Your task to perform on an android device: Open Google Chrome and click the shortcut for Amazon.com Image 0: 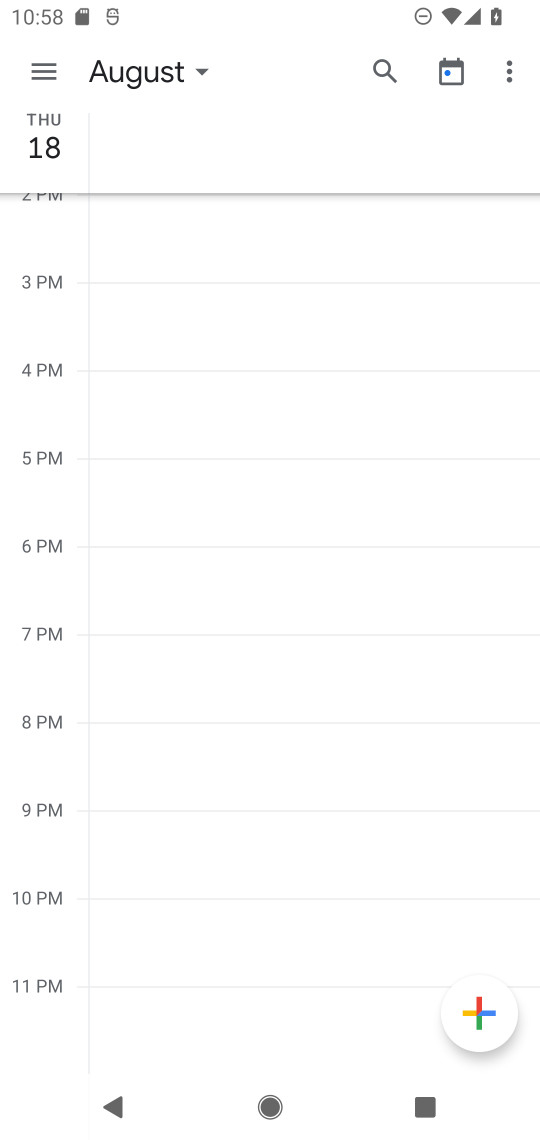
Step 0: press home button
Your task to perform on an android device: Open Google Chrome and click the shortcut for Amazon.com Image 1: 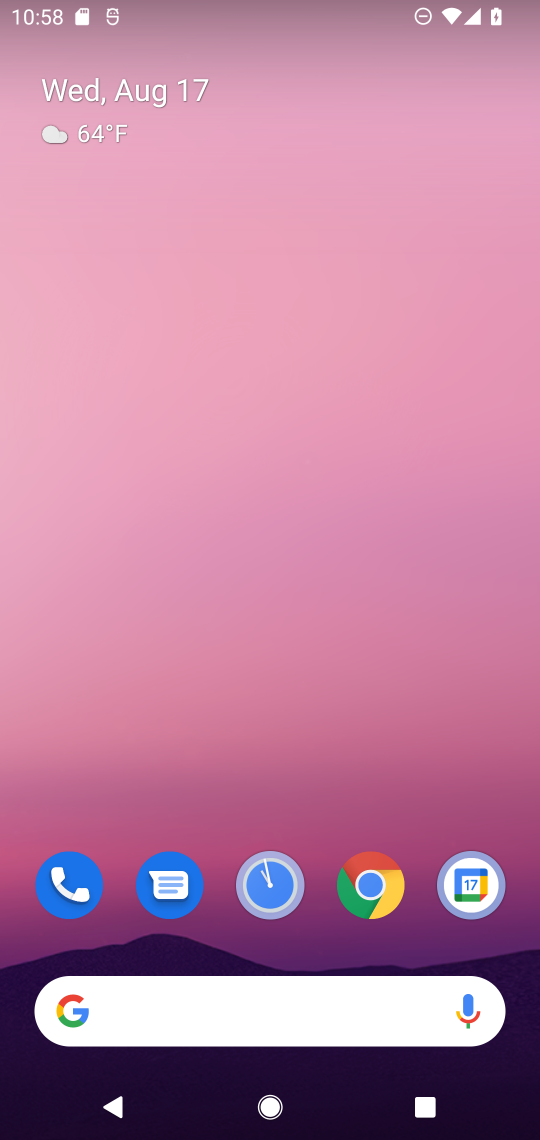
Step 1: click (368, 885)
Your task to perform on an android device: Open Google Chrome and click the shortcut for Amazon.com Image 2: 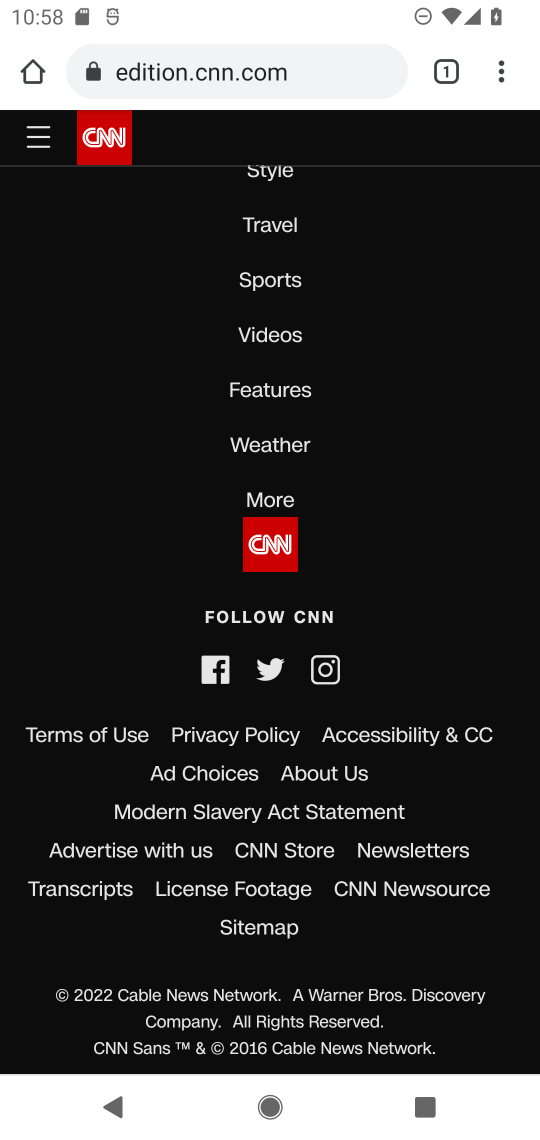
Step 2: click (487, 79)
Your task to perform on an android device: Open Google Chrome and click the shortcut for Amazon.com Image 3: 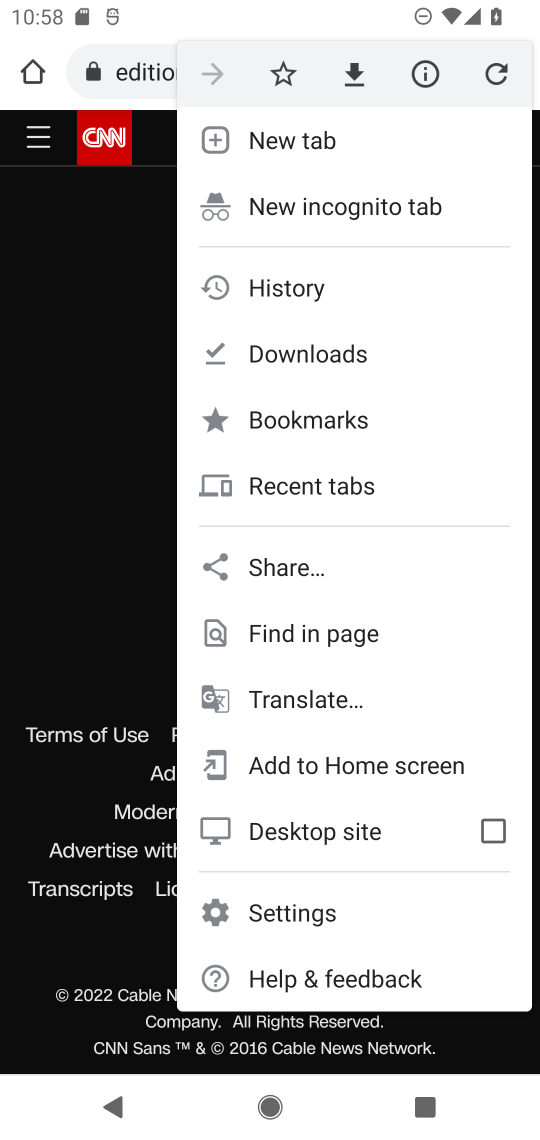
Step 3: click (293, 143)
Your task to perform on an android device: Open Google Chrome and click the shortcut for Amazon.com Image 4: 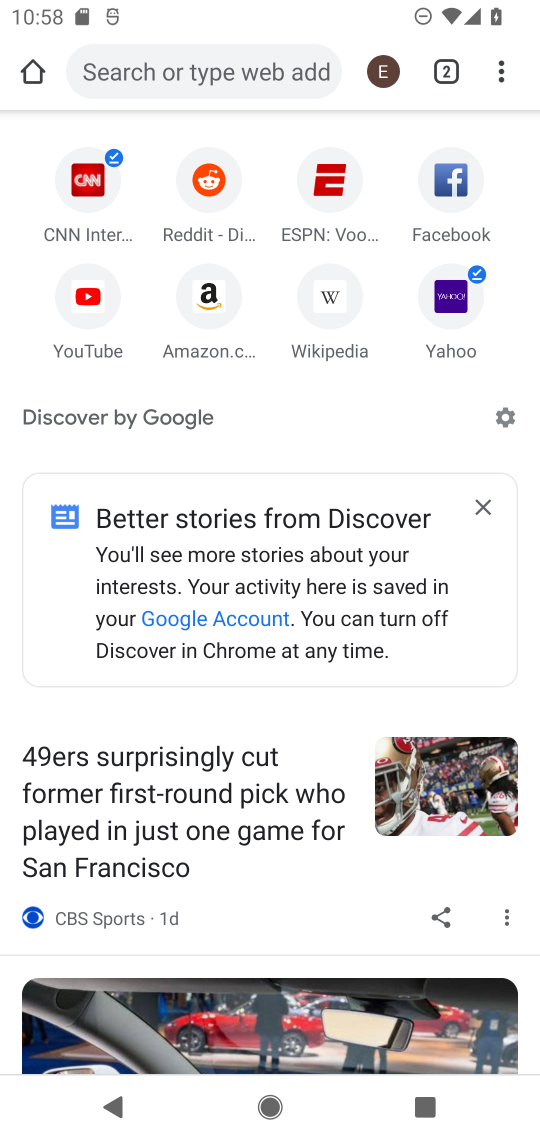
Step 4: click (205, 301)
Your task to perform on an android device: Open Google Chrome and click the shortcut for Amazon.com Image 5: 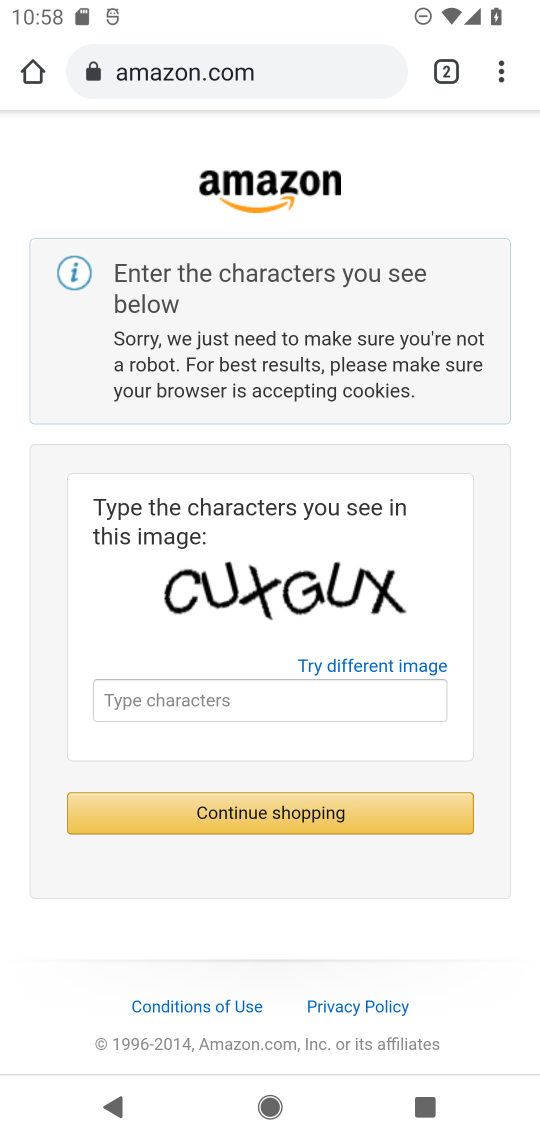
Step 5: task complete